Your task to perform on an android device: install app "Calculator" Image 0: 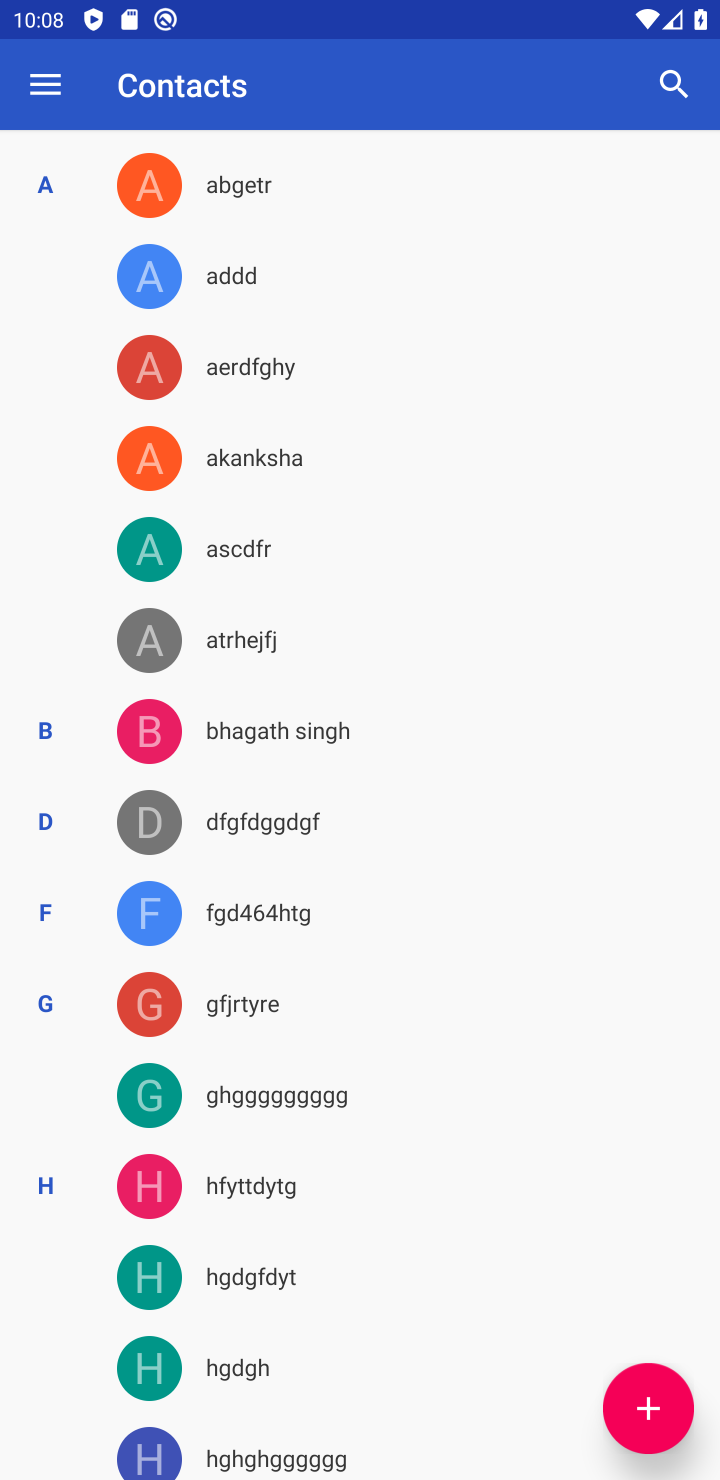
Step 0: press home button
Your task to perform on an android device: install app "Calculator" Image 1: 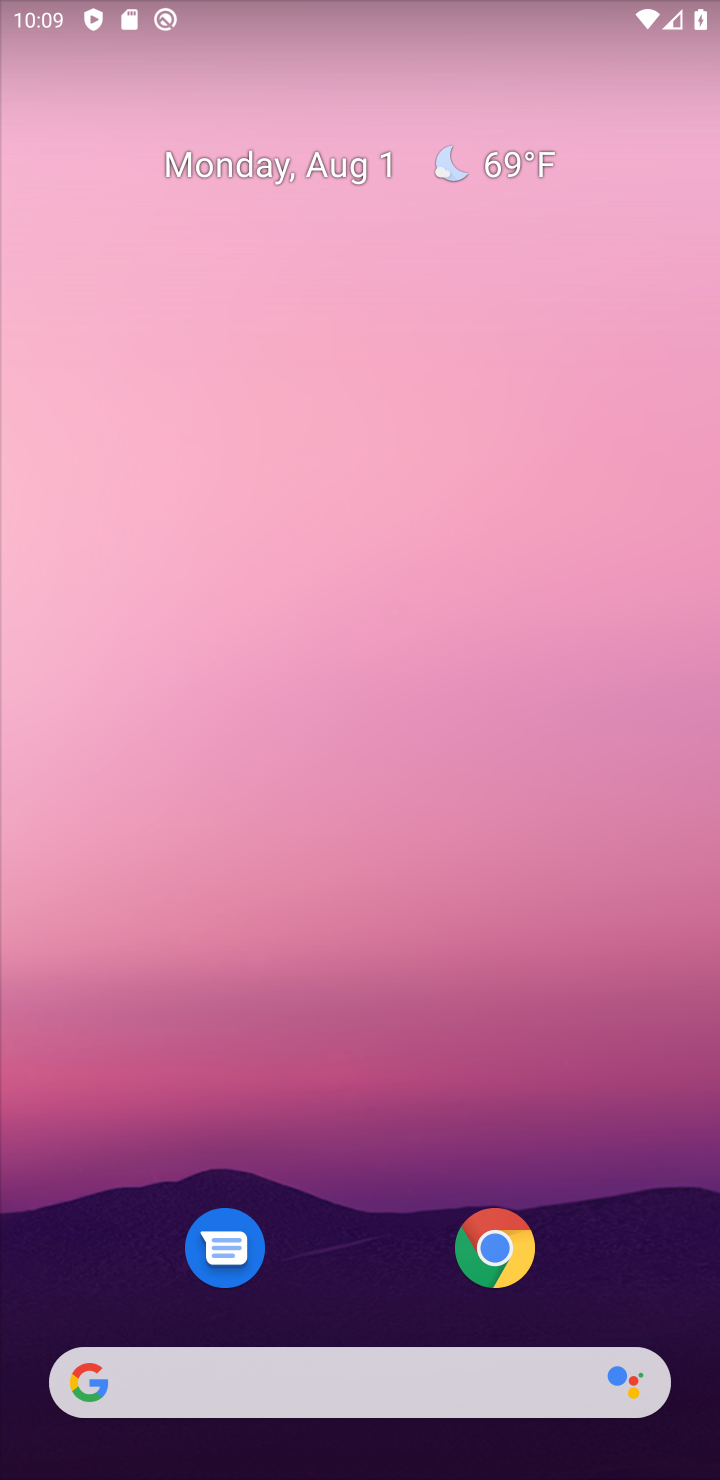
Step 1: drag from (351, 1185) to (400, 108)
Your task to perform on an android device: install app "Calculator" Image 2: 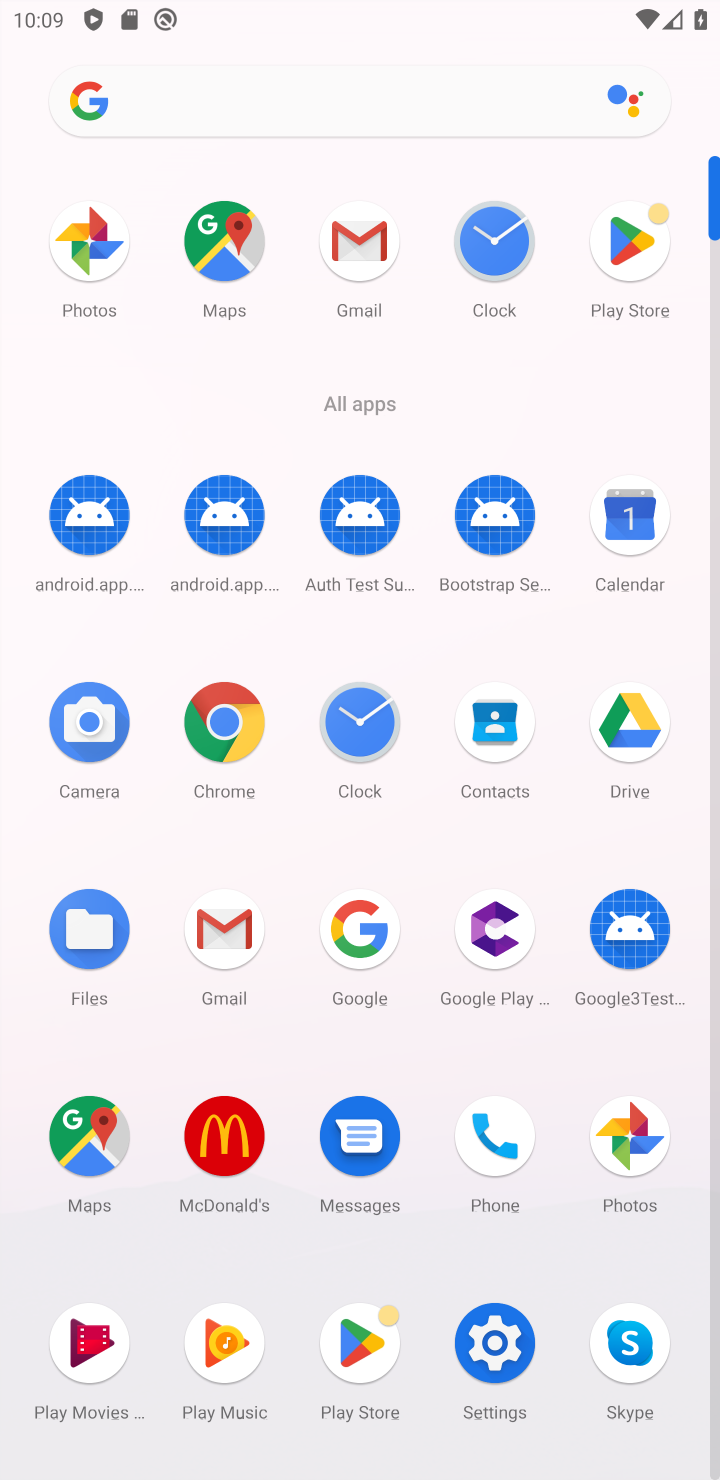
Step 2: click (642, 244)
Your task to perform on an android device: install app "Calculator" Image 3: 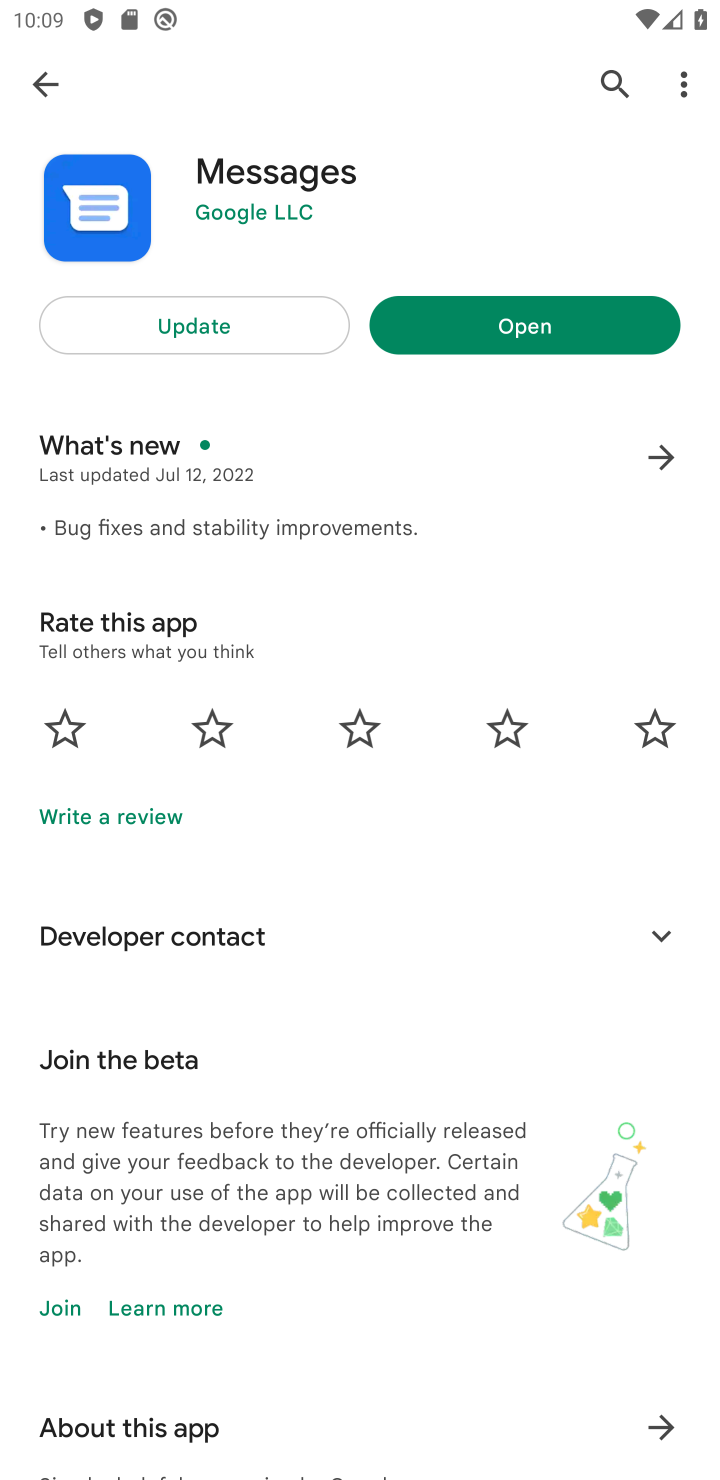
Step 3: click (617, 94)
Your task to perform on an android device: install app "Calculator" Image 4: 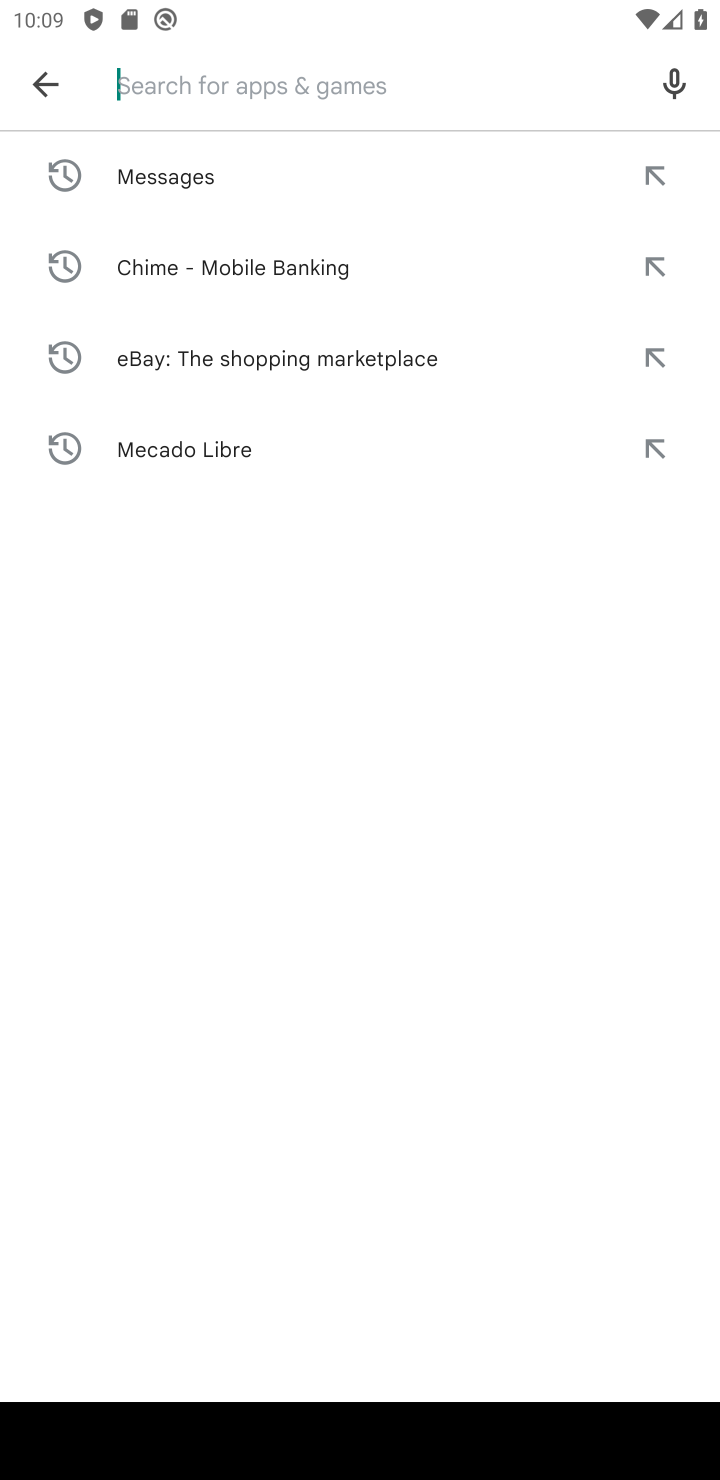
Step 4: type "Calcuator"
Your task to perform on an android device: install app "Calculator" Image 5: 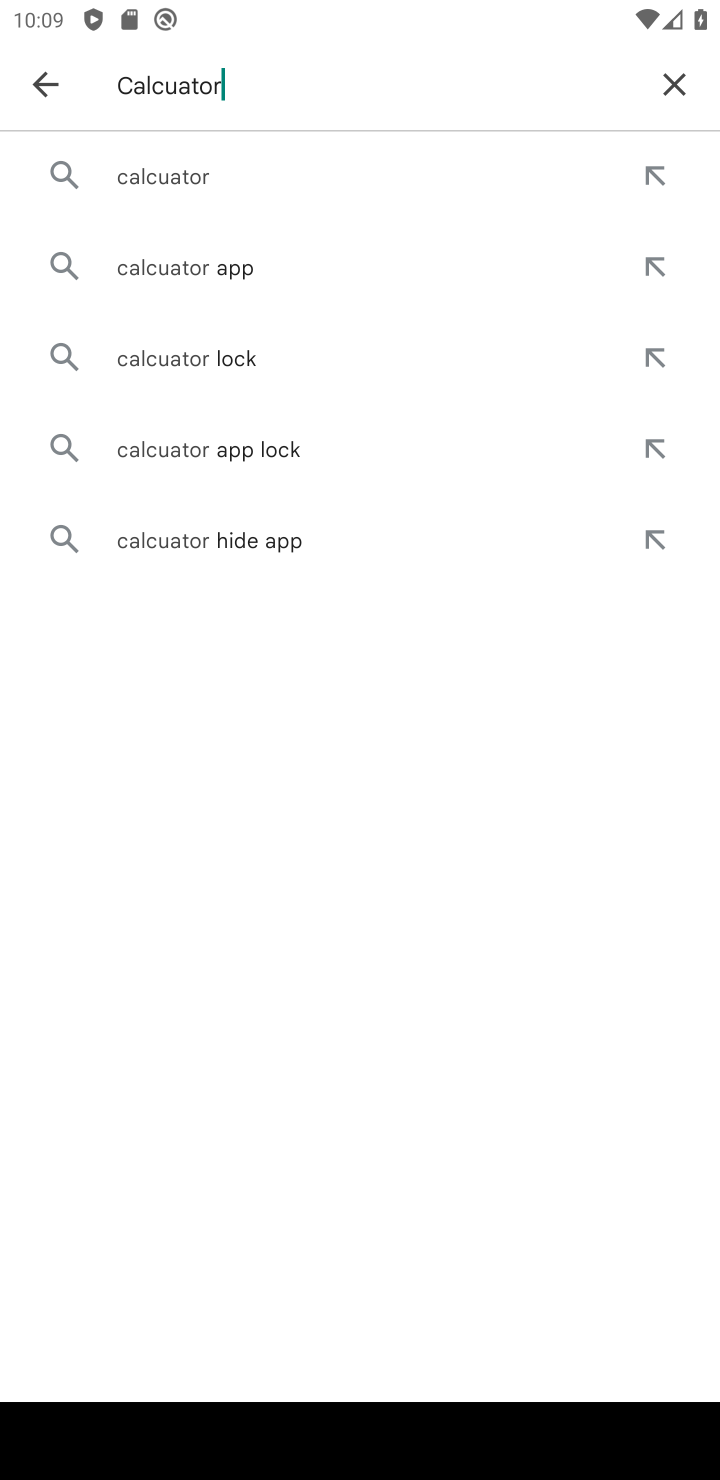
Step 5: press enter
Your task to perform on an android device: install app "Calculator" Image 6: 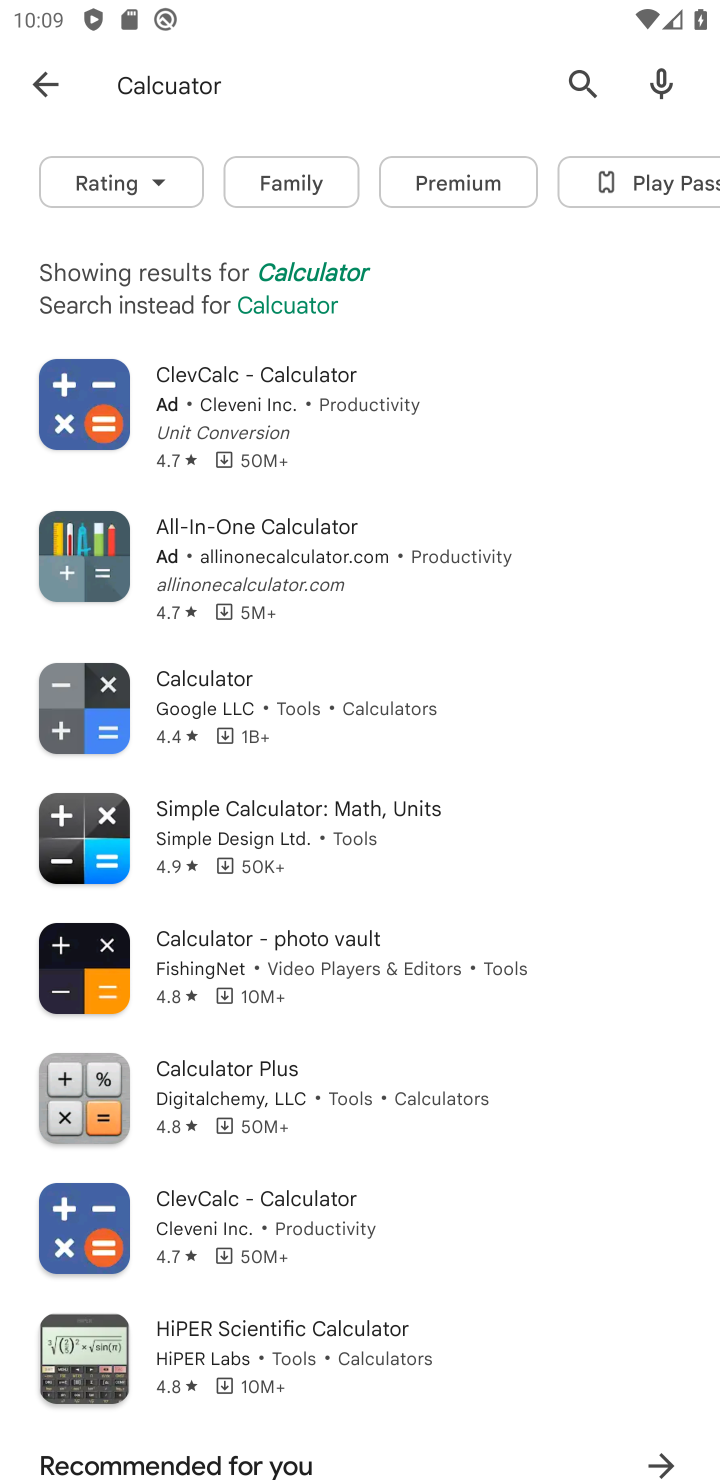
Step 6: click (325, 279)
Your task to perform on an android device: install app "Calculator" Image 7: 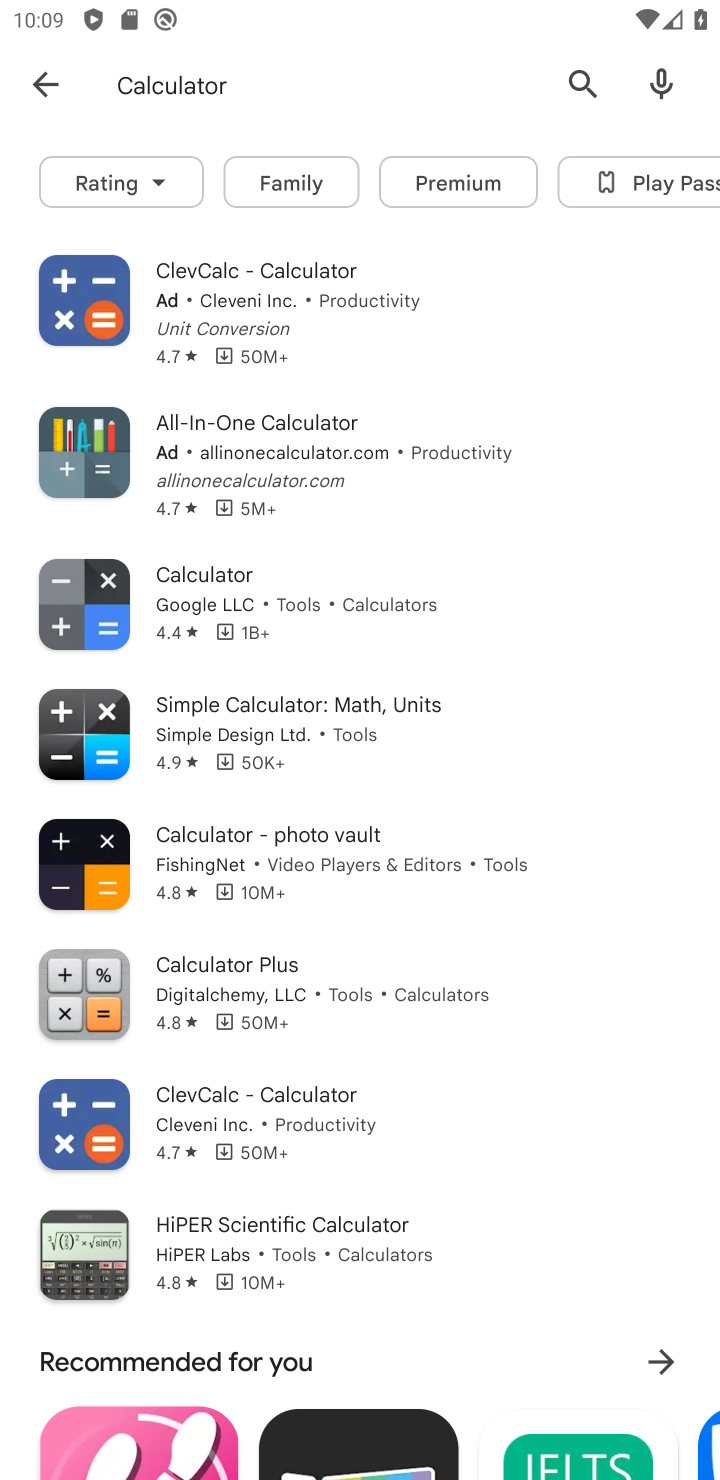
Step 7: click (237, 590)
Your task to perform on an android device: install app "Calculator" Image 8: 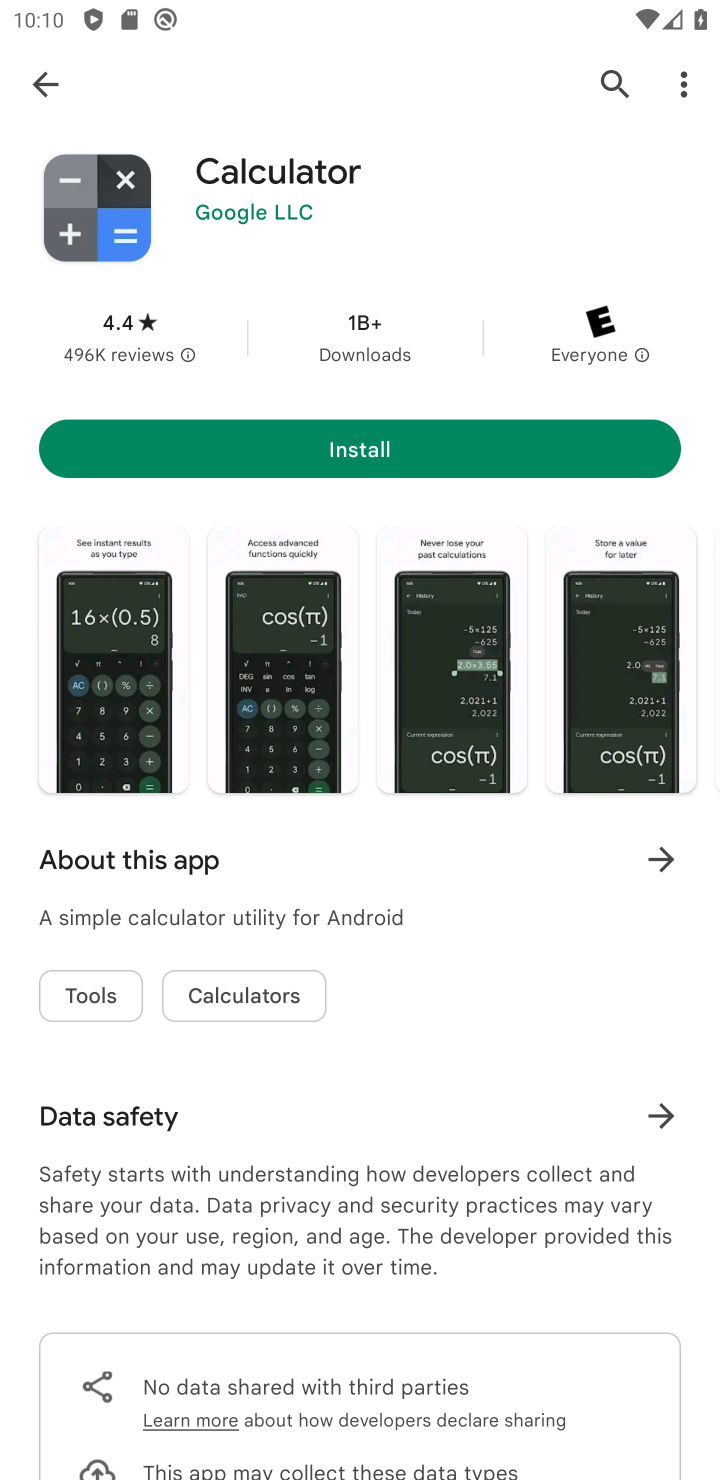
Step 8: click (396, 465)
Your task to perform on an android device: install app "Calculator" Image 9: 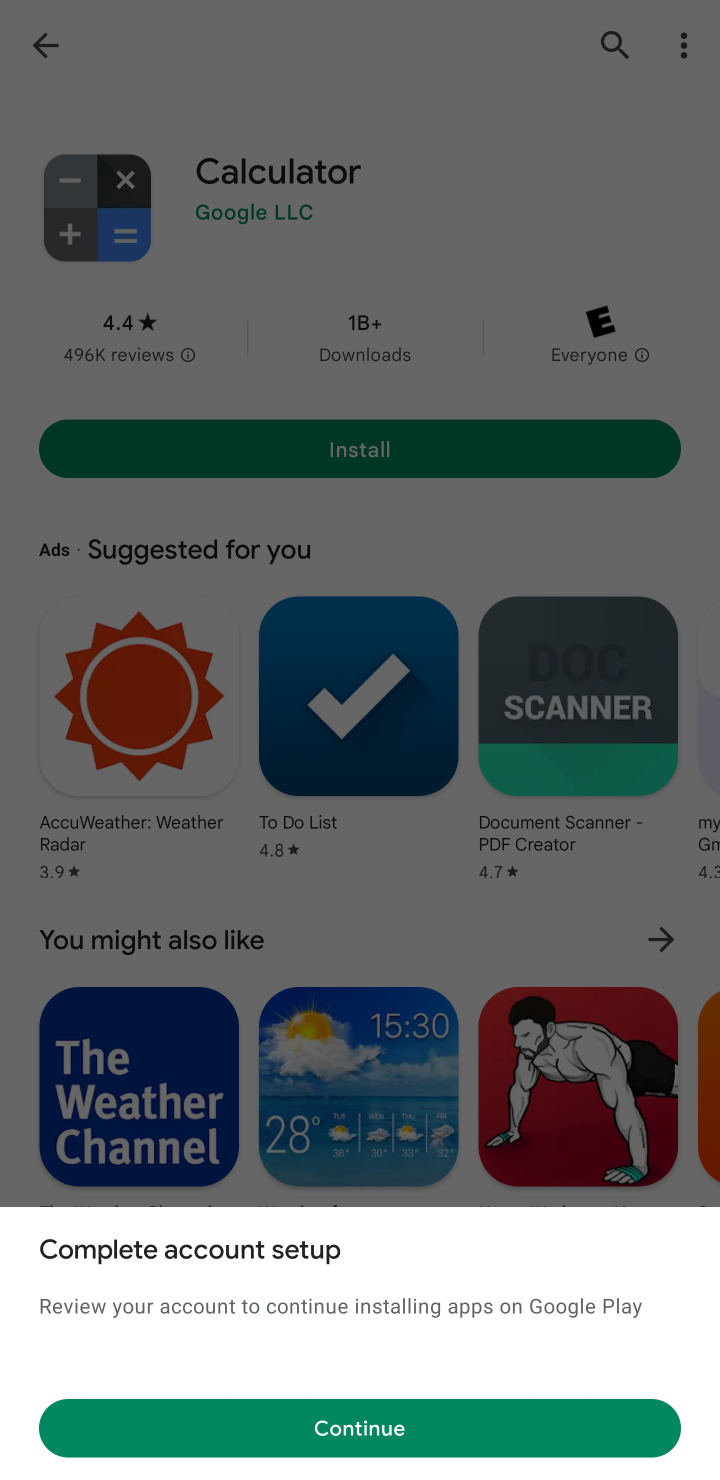
Step 9: click (502, 1407)
Your task to perform on an android device: install app "Calculator" Image 10: 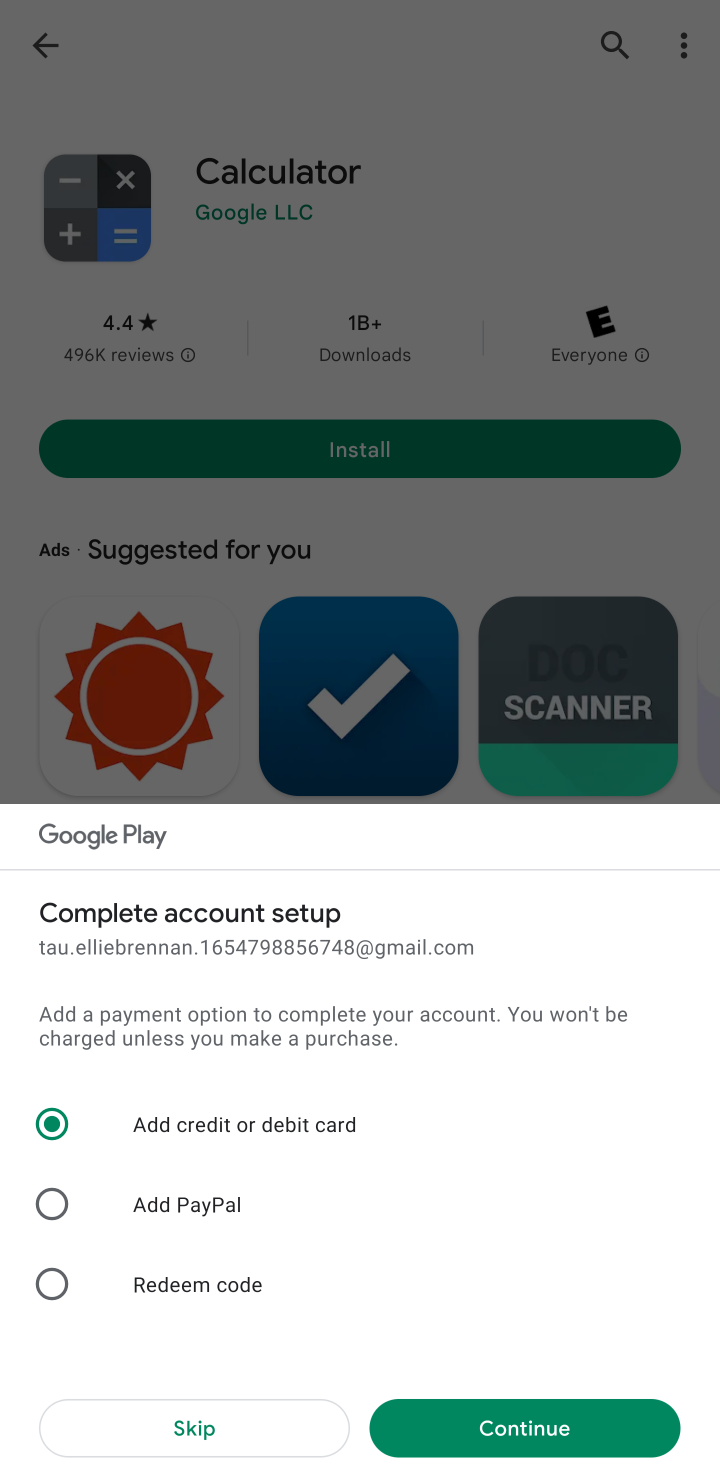
Step 10: click (207, 1421)
Your task to perform on an android device: install app "Calculator" Image 11: 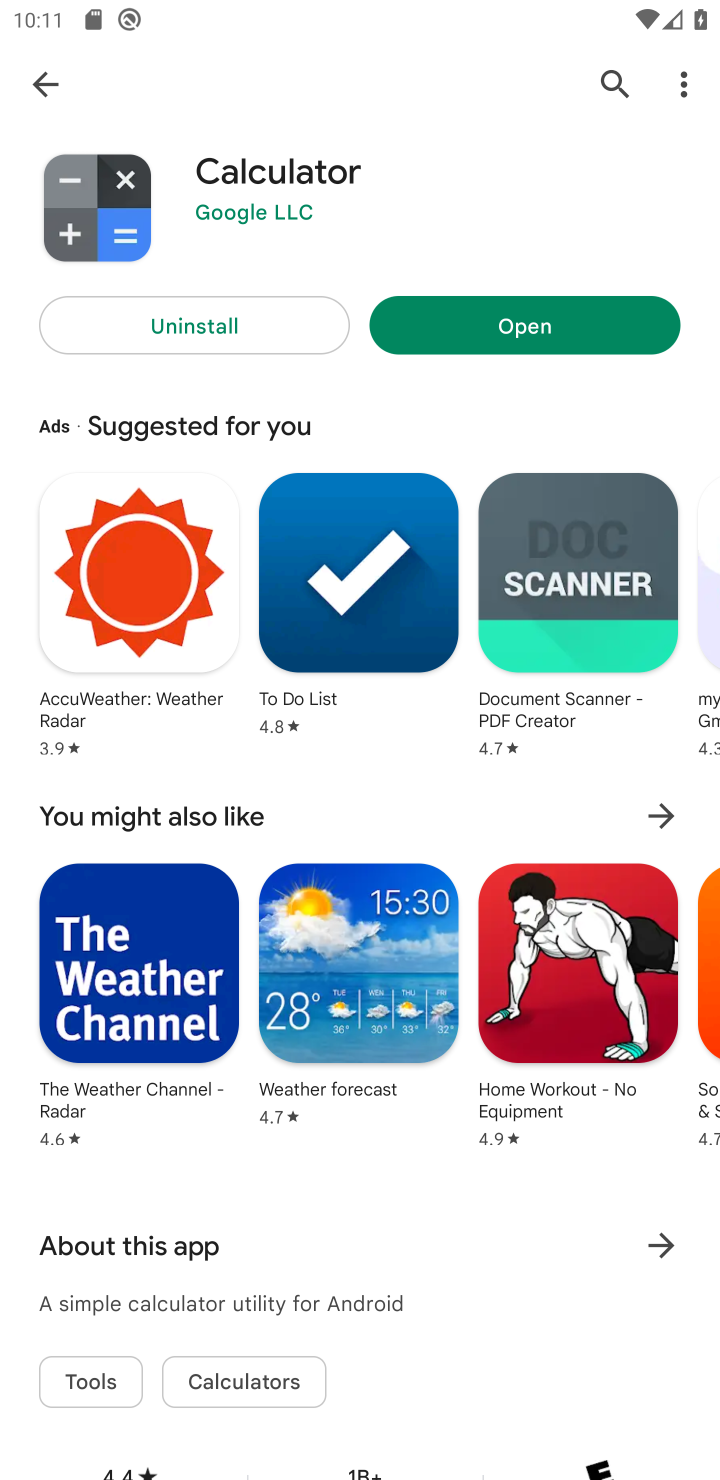
Step 11: task complete